Your task to perform on an android device: uninstall "ZOOM Cloud Meetings" Image 0: 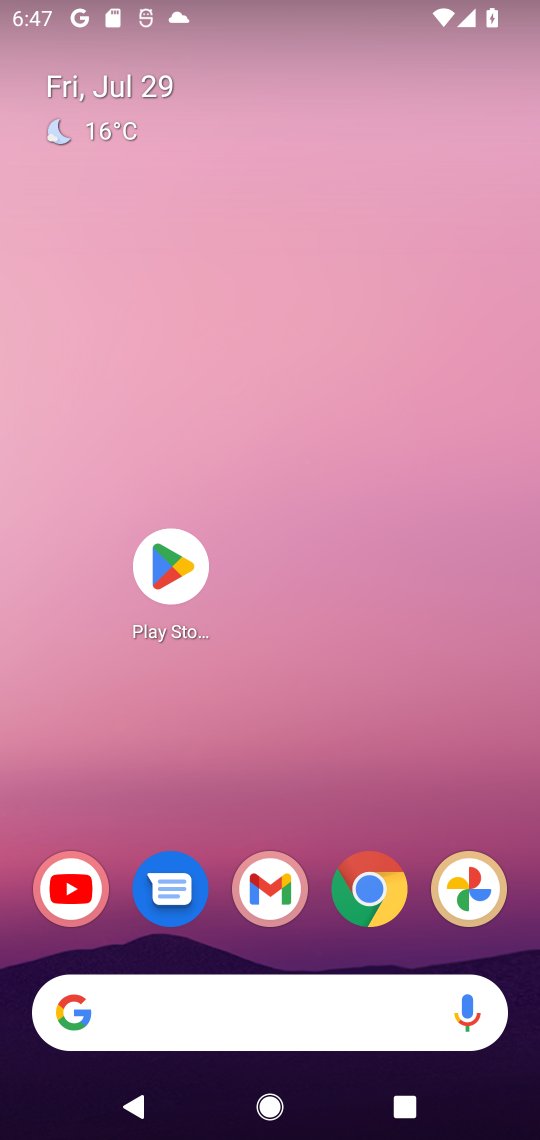
Step 0: press home button
Your task to perform on an android device: uninstall "ZOOM Cloud Meetings" Image 1: 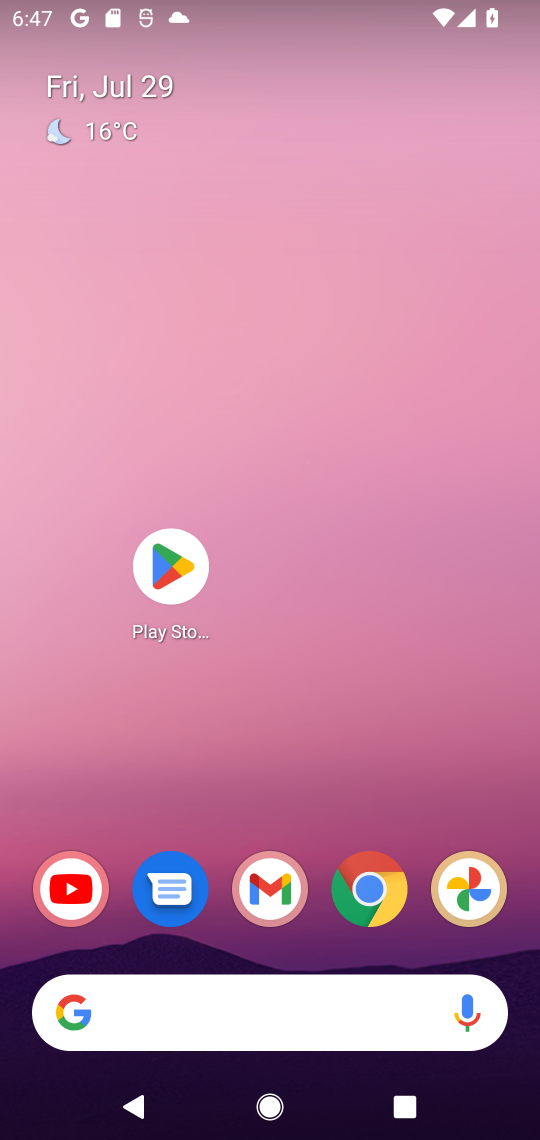
Step 1: click (158, 565)
Your task to perform on an android device: uninstall "ZOOM Cloud Meetings" Image 2: 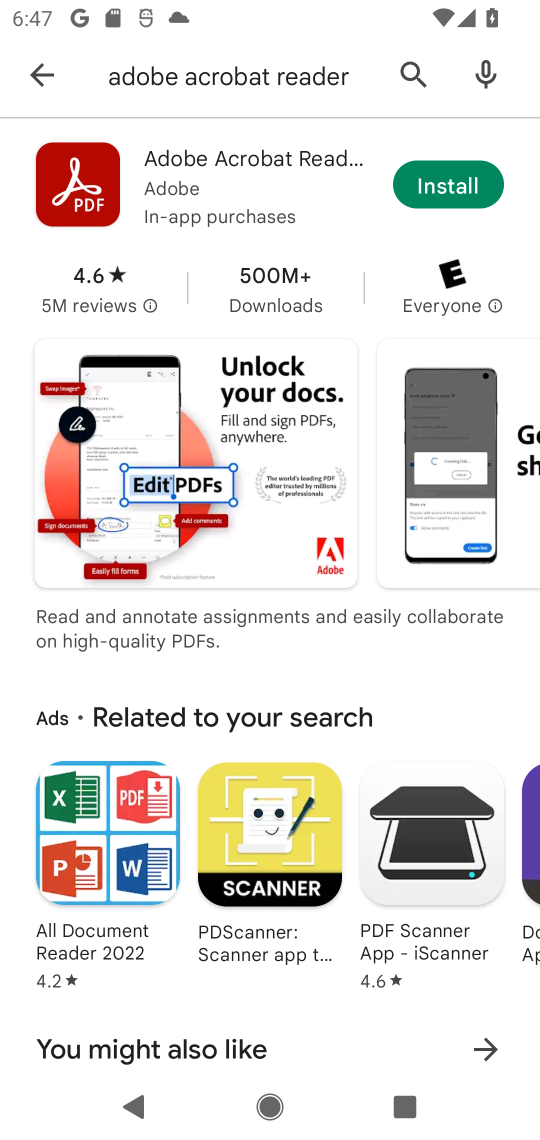
Step 2: click (409, 65)
Your task to perform on an android device: uninstall "ZOOM Cloud Meetings" Image 3: 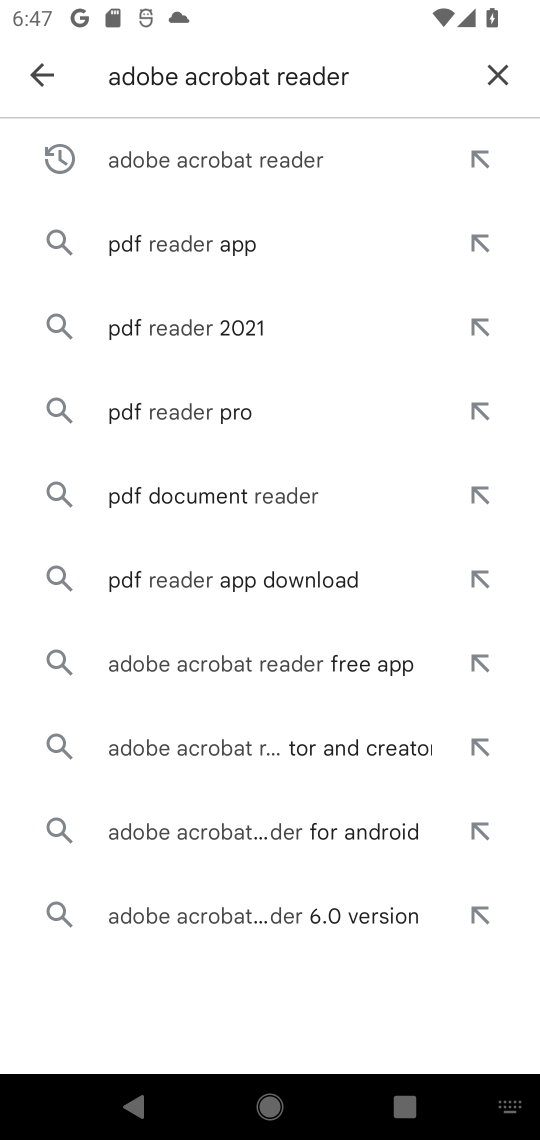
Step 3: click (497, 68)
Your task to perform on an android device: uninstall "ZOOM Cloud Meetings" Image 4: 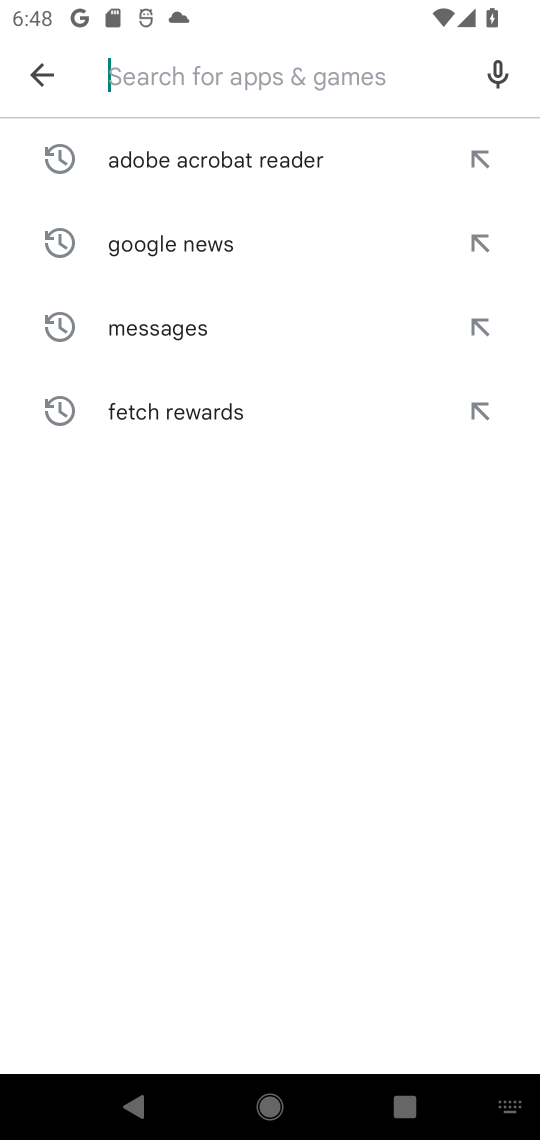
Step 4: type "ZOOM Cloud Meetings"
Your task to perform on an android device: uninstall "ZOOM Cloud Meetings" Image 5: 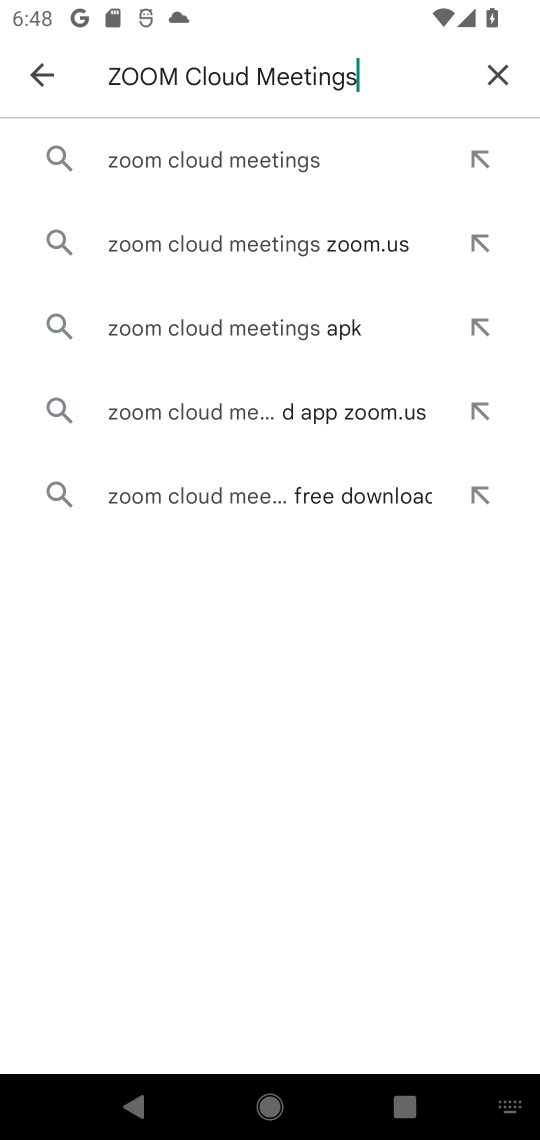
Step 5: click (260, 153)
Your task to perform on an android device: uninstall "ZOOM Cloud Meetings" Image 6: 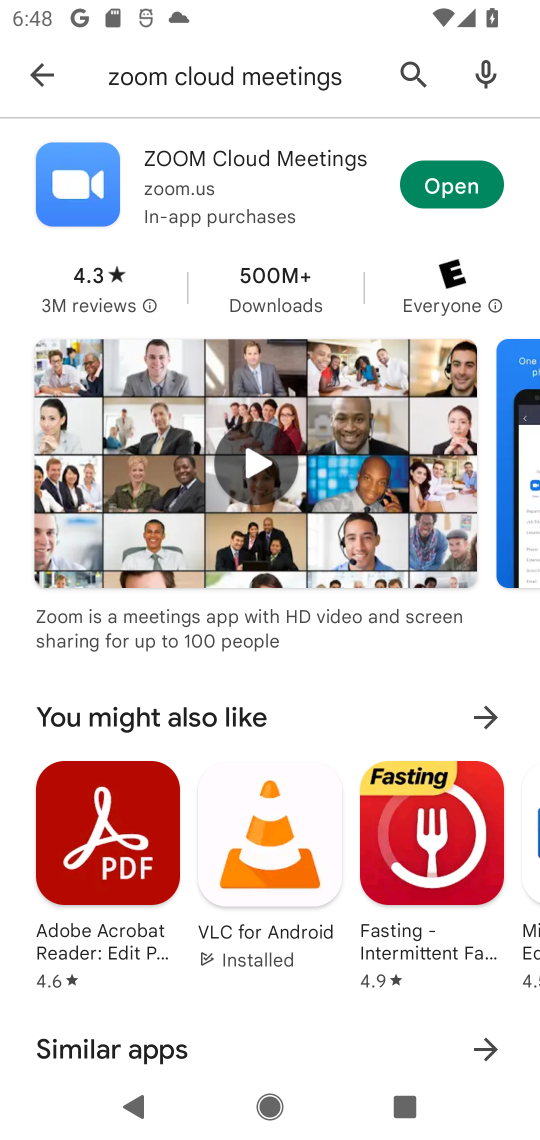
Step 6: task complete